Your task to perform on an android device: turn on location history Image 0: 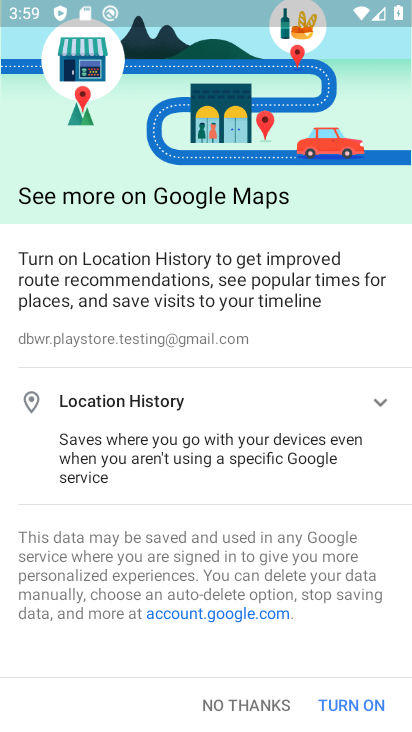
Step 0: press home button
Your task to perform on an android device: turn on location history Image 1: 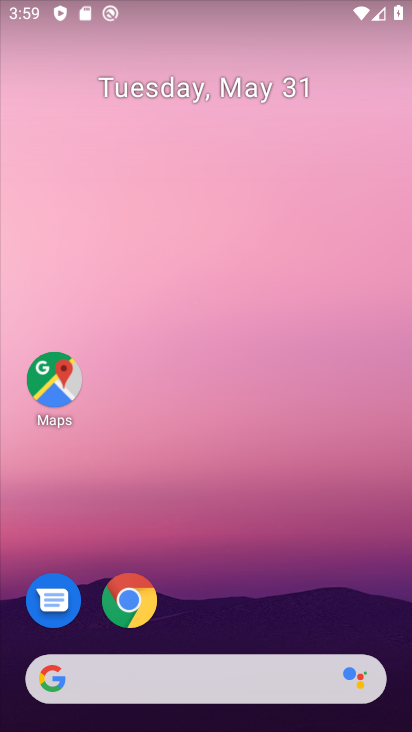
Step 1: drag from (249, 599) to (277, 64)
Your task to perform on an android device: turn on location history Image 2: 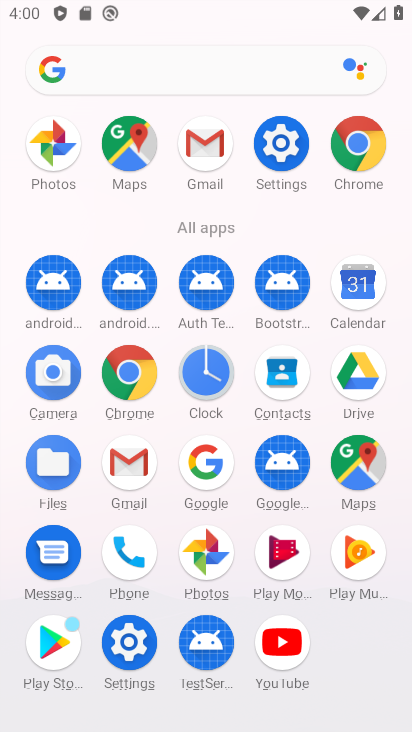
Step 2: click (279, 140)
Your task to perform on an android device: turn on location history Image 3: 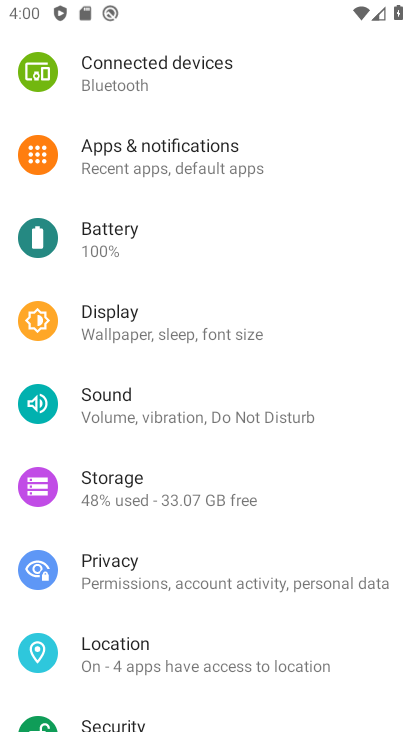
Step 3: drag from (170, 597) to (239, 499)
Your task to perform on an android device: turn on location history Image 4: 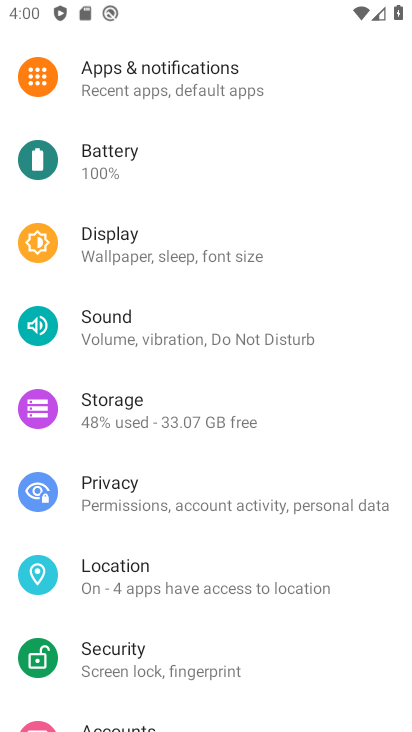
Step 4: click (185, 572)
Your task to perform on an android device: turn on location history Image 5: 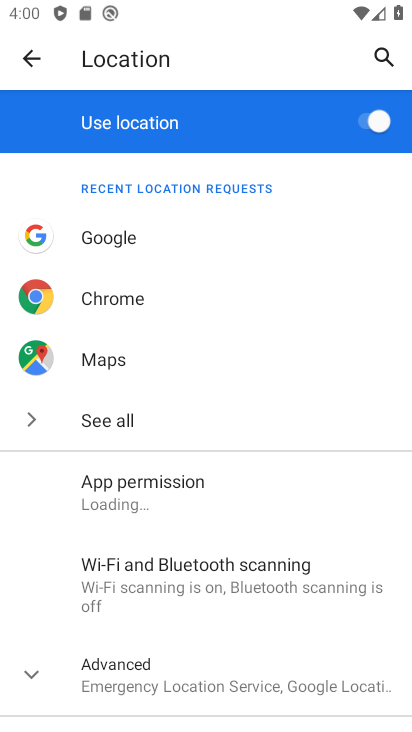
Step 5: click (197, 675)
Your task to perform on an android device: turn on location history Image 6: 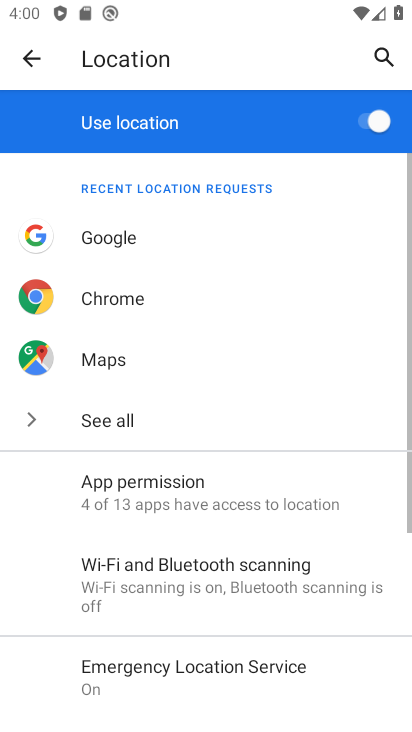
Step 6: drag from (190, 615) to (265, 407)
Your task to perform on an android device: turn on location history Image 7: 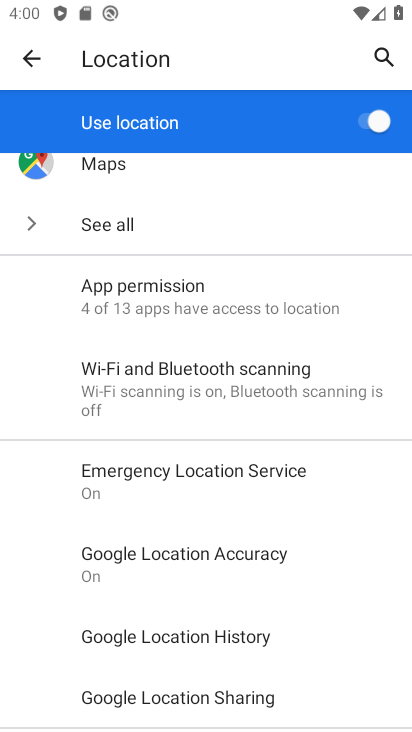
Step 7: click (168, 632)
Your task to perform on an android device: turn on location history Image 8: 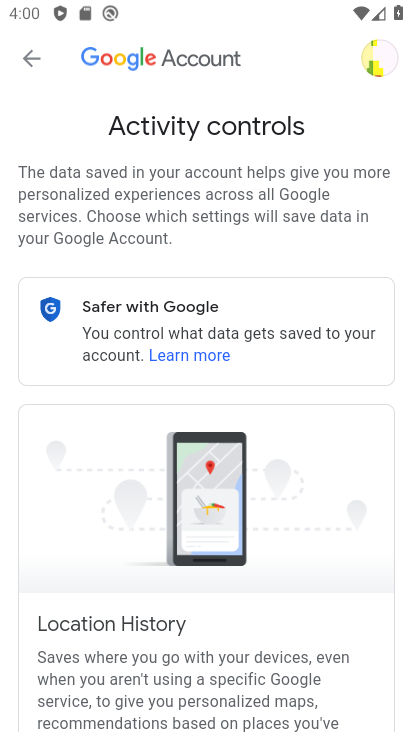
Step 8: task complete